Your task to perform on an android device: change your default location settings in chrome Image 0: 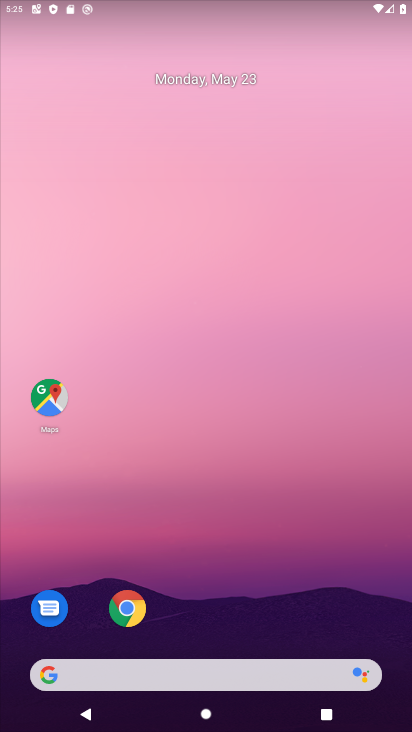
Step 0: drag from (210, 634) to (245, 173)
Your task to perform on an android device: change your default location settings in chrome Image 1: 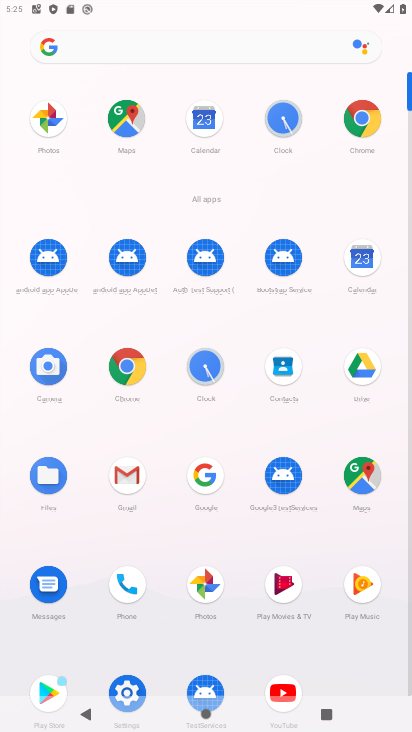
Step 1: click (128, 363)
Your task to perform on an android device: change your default location settings in chrome Image 2: 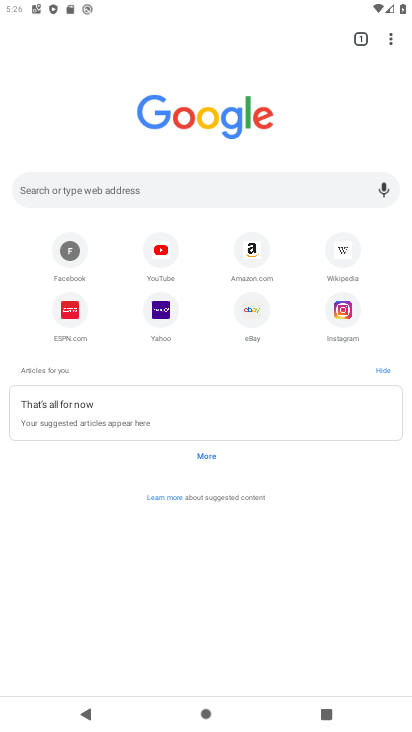
Step 2: click (394, 42)
Your task to perform on an android device: change your default location settings in chrome Image 3: 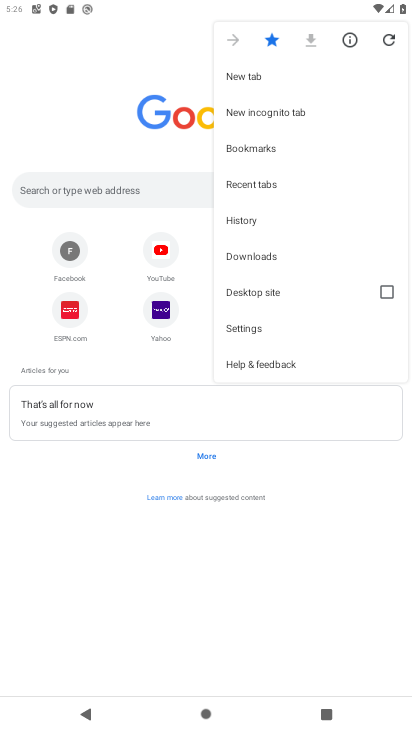
Step 3: click (244, 330)
Your task to perform on an android device: change your default location settings in chrome Image 4: 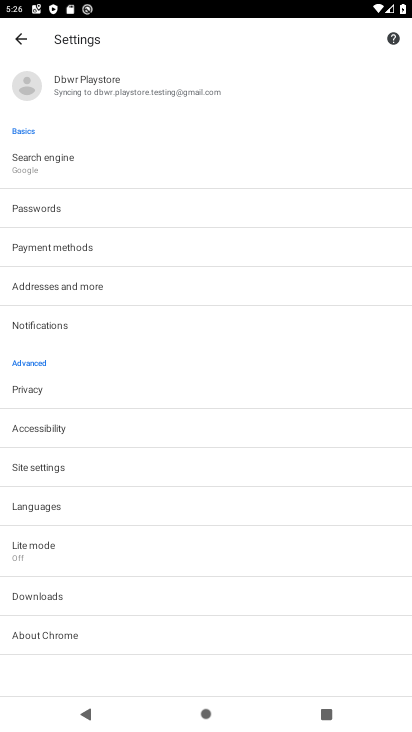
Step 4: click (51, 468)
Your task to perform on an android device: change your default location settings in chrome Image 5: 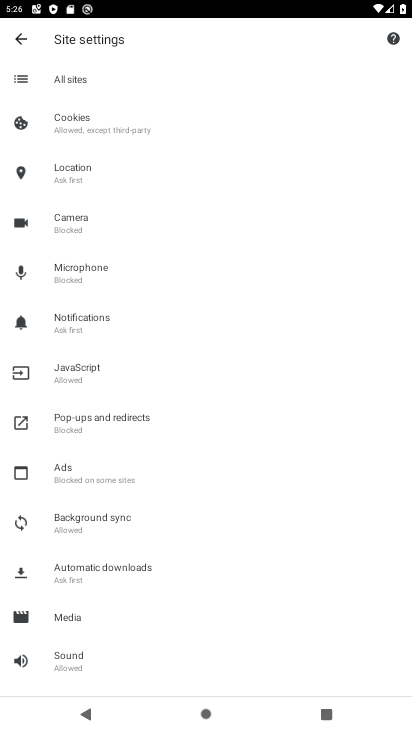
Step 5: click (80, 175)
Your task to perform on an android device: change your default location settings in chrome Image 6: 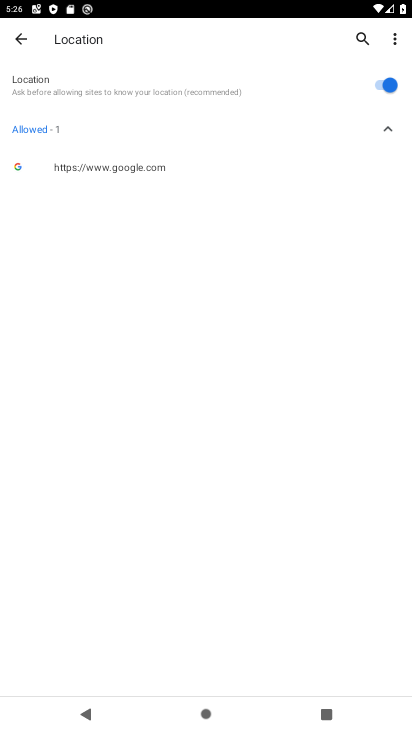
Step 6: click (371, 87)
Your task to perform on an android device: change your default location settings in chrome Image 7: 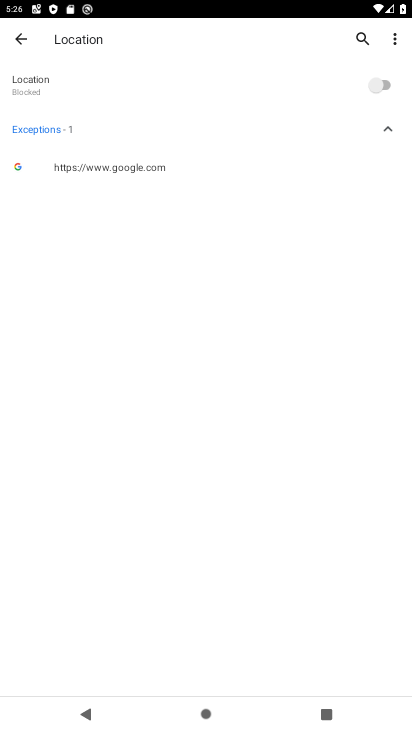
Step 7: task complete